Your task to perform on an android device: Open Maps and search for coffee Image 0: 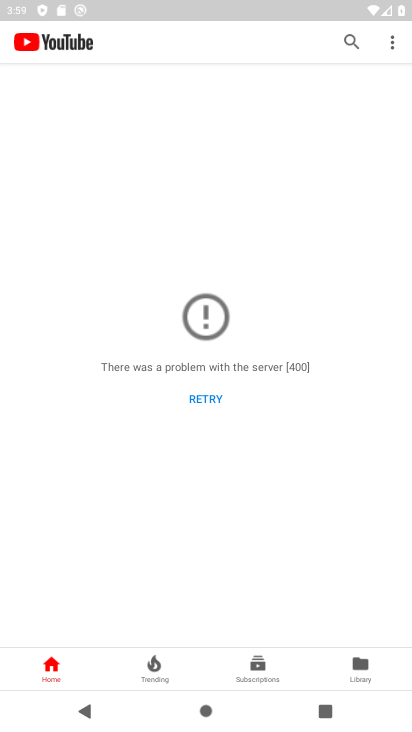
Step 0: press home button
Your task to perform on an android device: Open Maps and search for coffee Image 1: 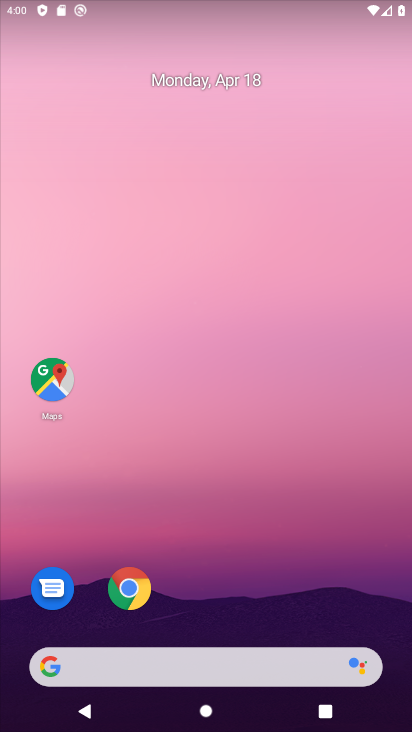
Step 1: click (57, 384)
Your task to perform on an android device: Open Maps and search for coffee Image 2: 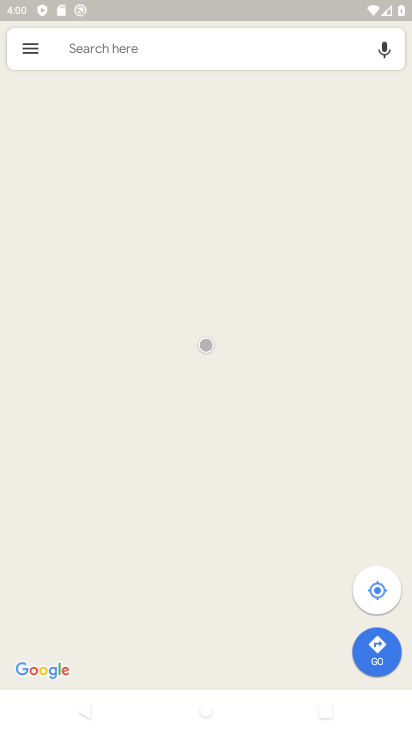
Step 2: click (198, 55)
Your task to perform on an android device: Open Maps and search for coffee Image 3: 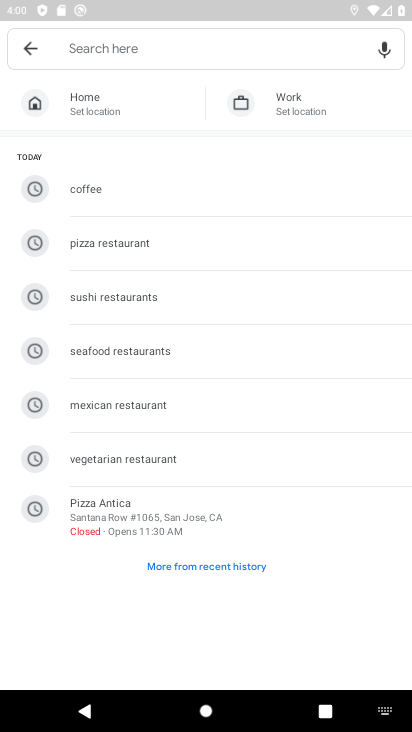
Step 3: type "coffee"
Your task to perform on an android device: Open Maps and search for coffee Image 4: 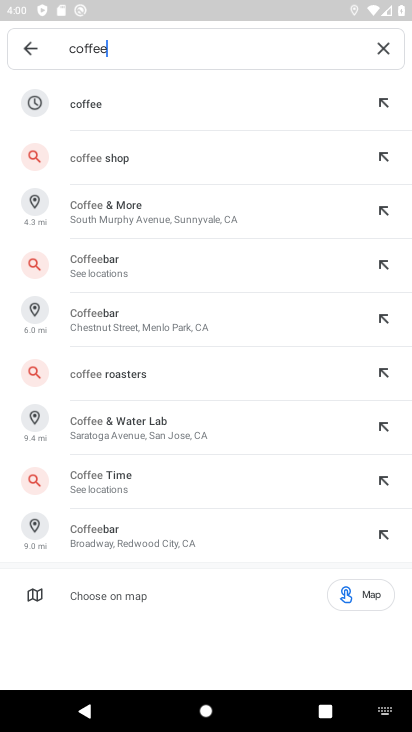
Step 4: click (141, 104)
Your task to perform on an android device: Open Maps and search for coffee Image 5: 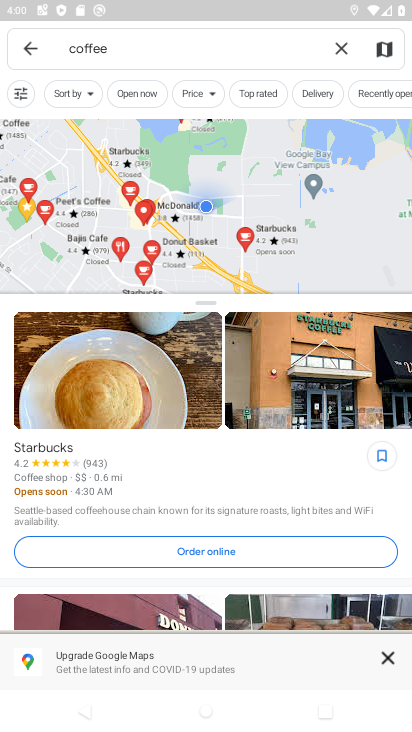
Step 5: task complete